Your task to perform on an android device: Set the phone to "Do not disturb". Image 0: 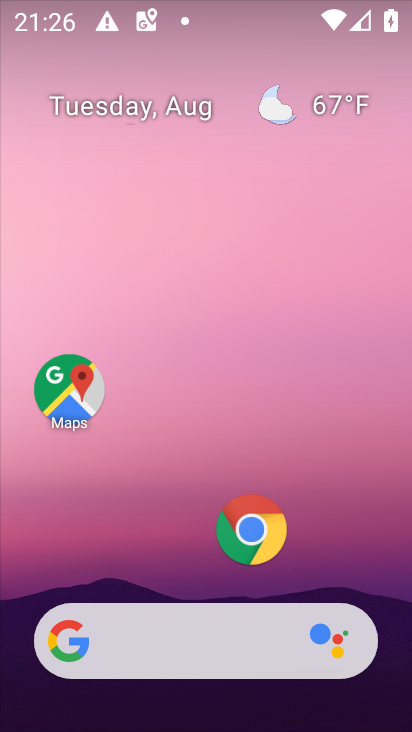
Step 0: drag from (193, 492) to (149, 43)
Your task to perform on an android device: Set the phone to "Do not disturb". Image 1: 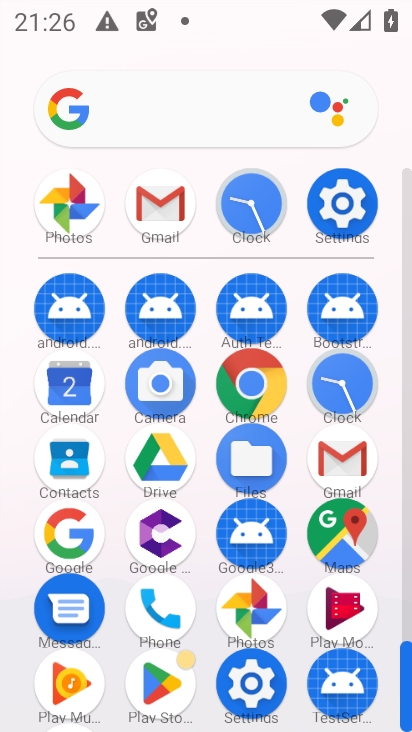
Step 1: click (256, 677)
Your task to perform on an android device: Set the phone to "Do not disturb". Image 2: 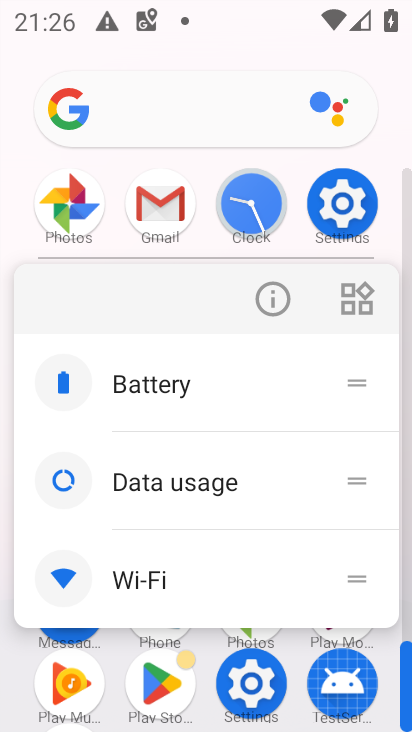
Step 2: click (280, 303)
Your task to perform on an android device: Set the phone to "Do not disturb". Image 3: 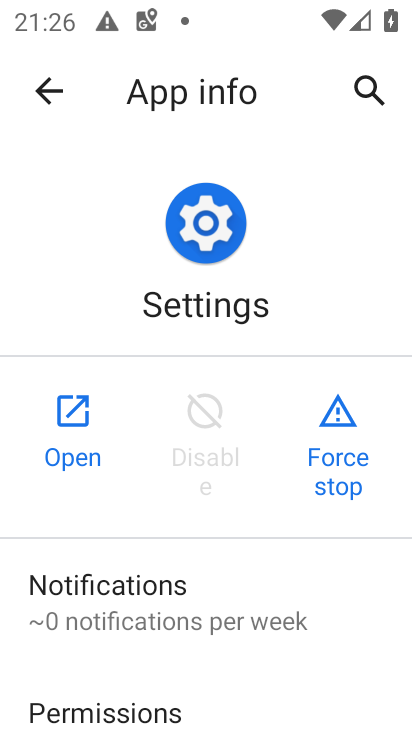
Step 3: click (77, 455)
Your task to perform on an android device: Set the phone to "Do not disturb". Image 4: 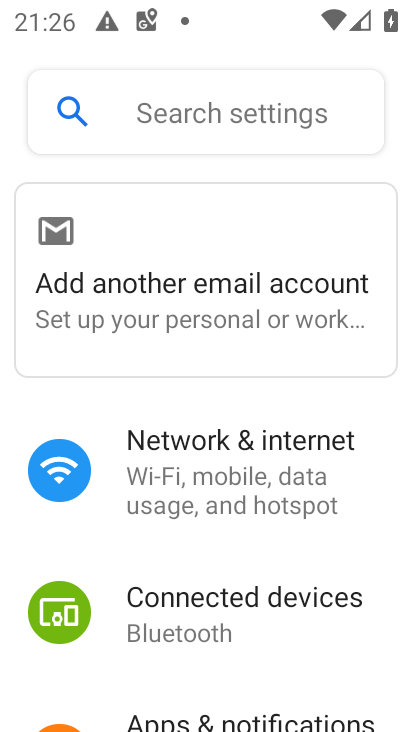
Step 4: drag from (245, 553) to (350, 288)
Your task to perform on an android device: Set the phone to "Do not disturb". Image 5: 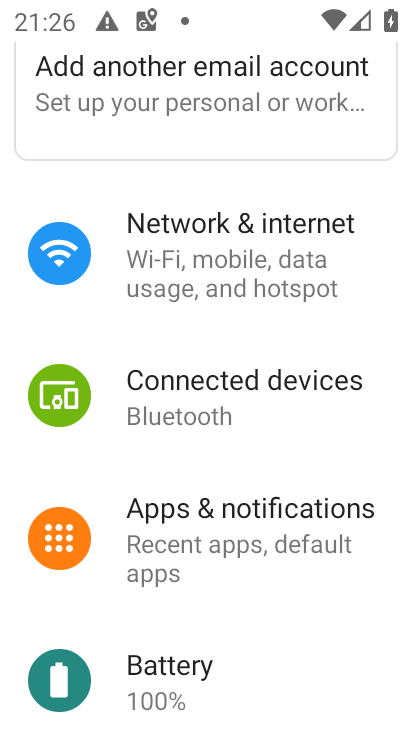
Step 5: click (273, 520)
Your task to perform on an android device: Set the phone to "Do not disturb". Image 6: 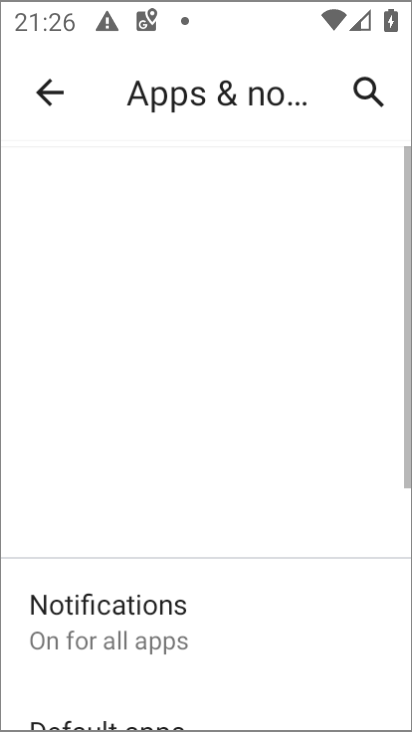
Step 6: drag from (214, 582) to (274, 198)
Your task to perform on an android device: Set the phone to "Do not disturb". Image 7: 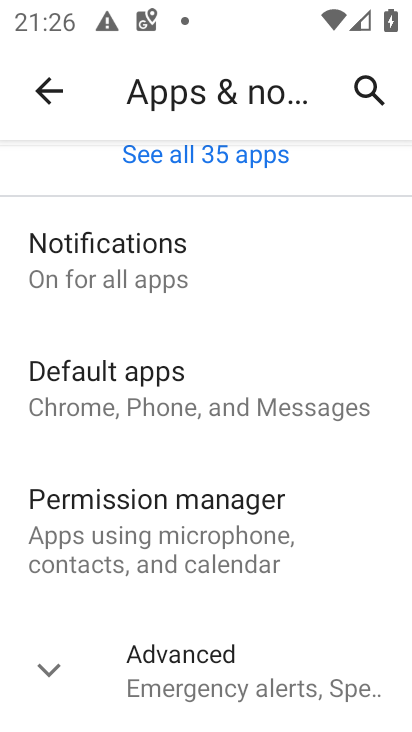
Step 7: click (148, 284)
Your task to perform on an android device: Set the phone to "Do not disturb". Image 8: 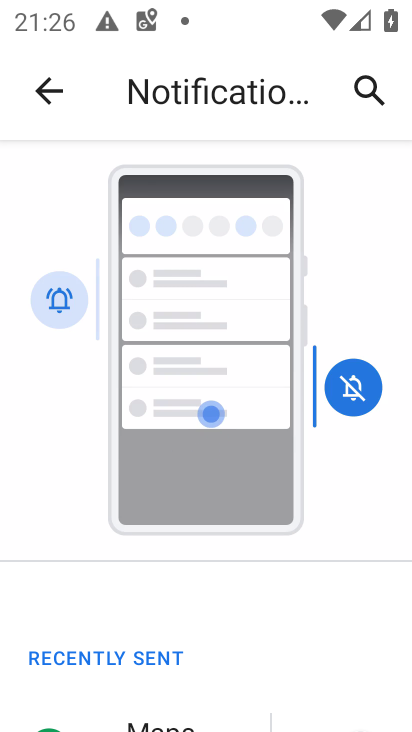
Step 8: drag from (138, 612) to (251, 100)
Your task to perform on an android device: Set the phone to "Do not disturb". Image 9: 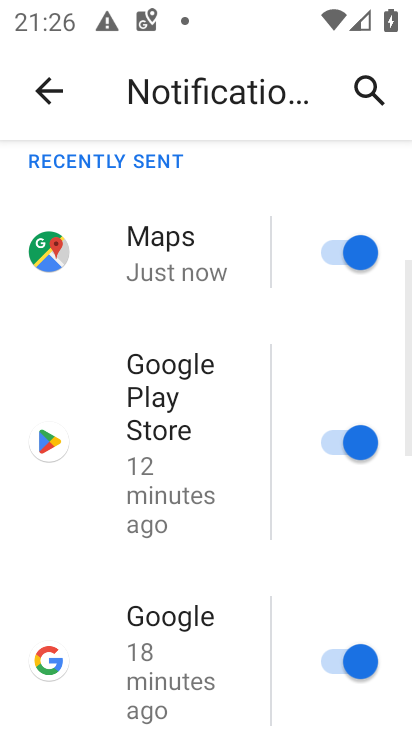
Step 9: drag from (198, 540) to (236, 164)
Your task to perform on an android device: Set the phone to "Do not disturb". Image 10: 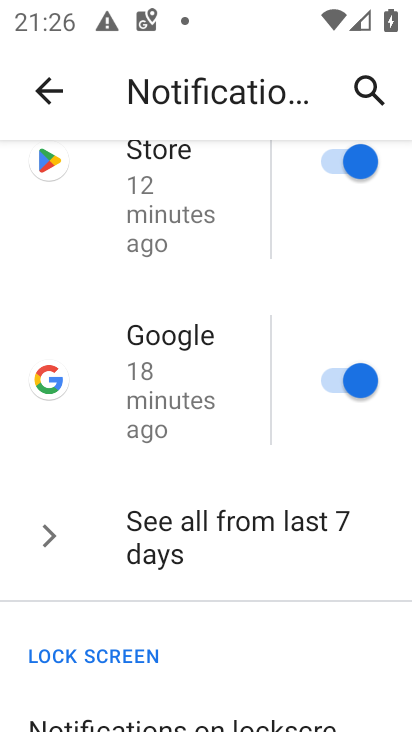
Step 10: drag from (192, 578) to (275, 132)
Your task to perform on an android device: Set the phone to "Do not disturb". Image 11: 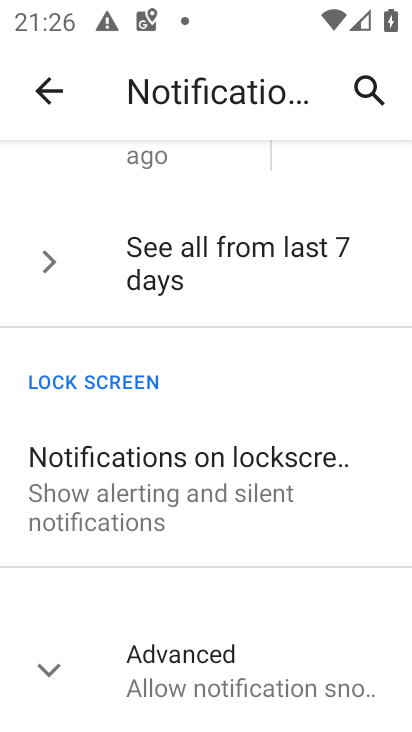
Step 11: click (147, 677)
Your task to perform on an android device: Set the phone to "Do not disturb". Image 12: 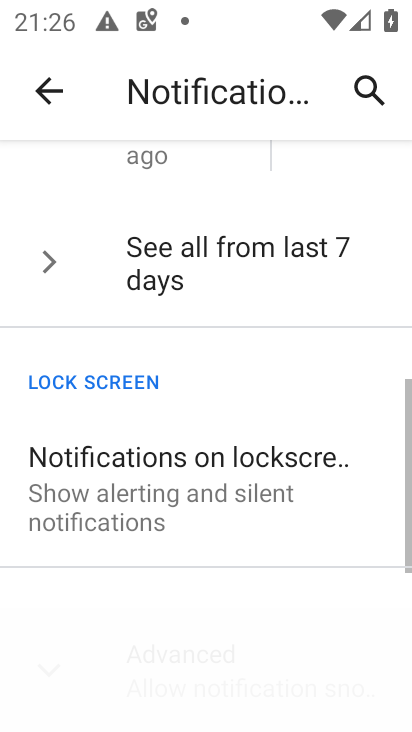
Step 12: drag from (155, 642) to (402, 8)
Your task to perform on an android device: Set the phone to "Do not disturb". Image 13: 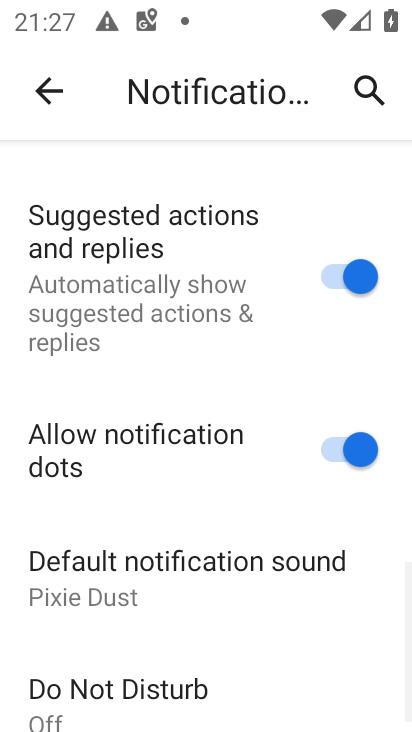
Step 13: drag from (151, 516) to (234, 135)
Your task to perform on an android device: Set the phone to "Do not disturb". Image 14: 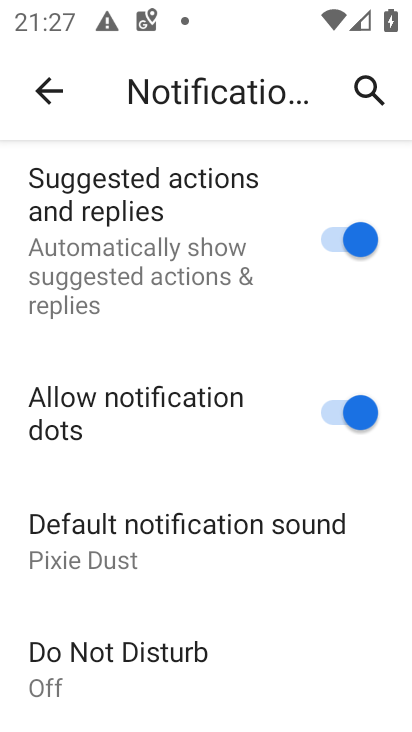
Step 14: click (143, 674)
Your task to perform on an android device: Set the phone to "Do not disturb". Image 15: 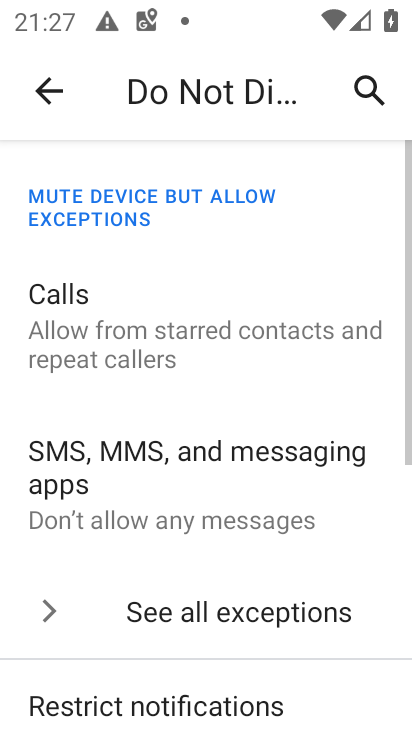
Step 15: drag from (148, 604) to (301, 183)
Your task to perform on an android device: Set the phone to "Do not disturb". Image 16: 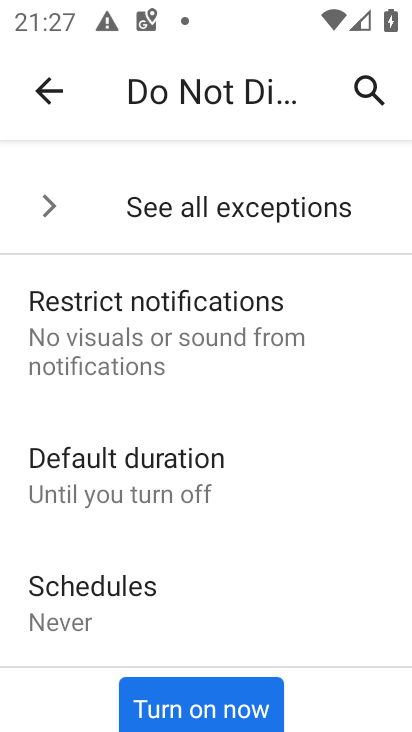
Step 16: drag from (213, 406) to (328, 197)
Your task to perform on an android device: Set the phone to "Do not disturb". Image 17: 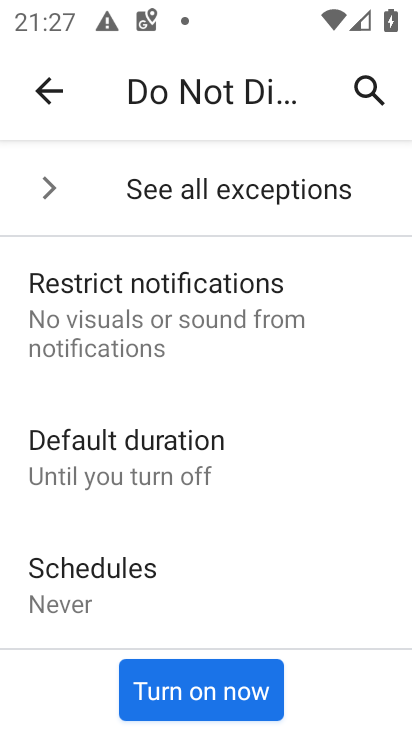
Step 17: click (210, 692)
Your task to perform on an android device: Set the phone to "Do not disturb". Image 18: 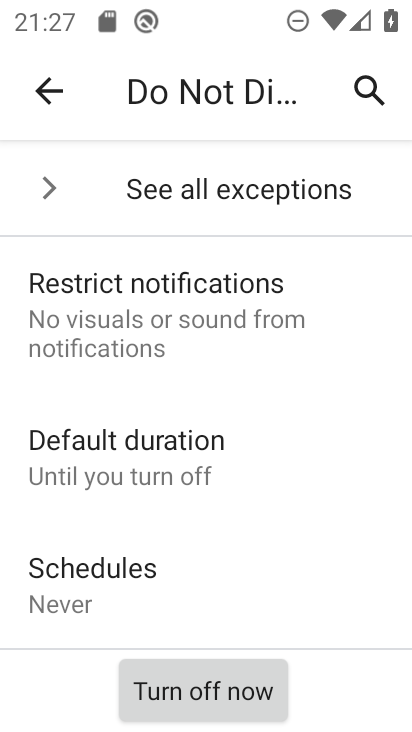
Step 18: task complete